Your task to perform on an android device: Set the phone to "Do not disturb". Image 0: 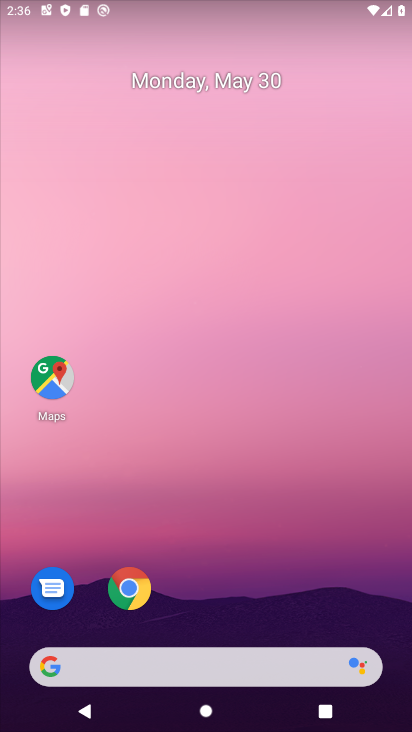
Step 0: drag from (130, 19) to (147, 598)
Your task to perform on an android device: Set the phone to "Do not disturb". Image 1: 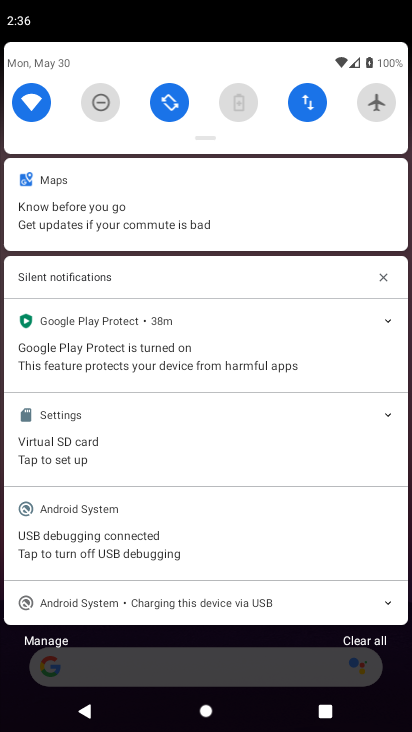
Step 1: click (101, 90)
Your task to perform on an android device: Set the phone to "Do not disturb". Image 2: 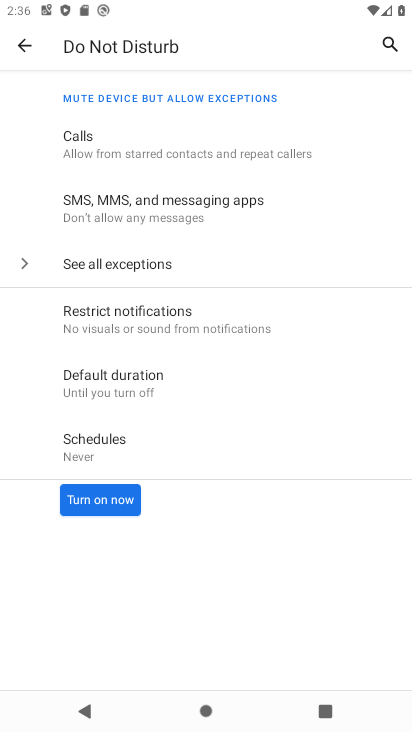
Step 2: click (70, 505)
Your task to perform on an android device: Set the phone to "Do not disturb". Image 3: 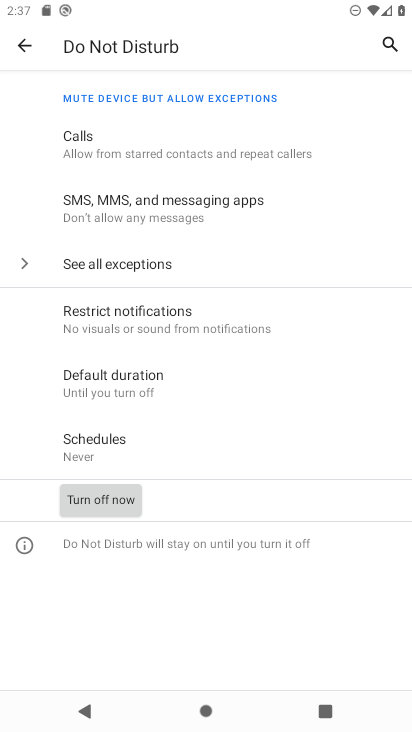
Step 3: task complete